Your task to perform on an android device: Open display settings Image 0: 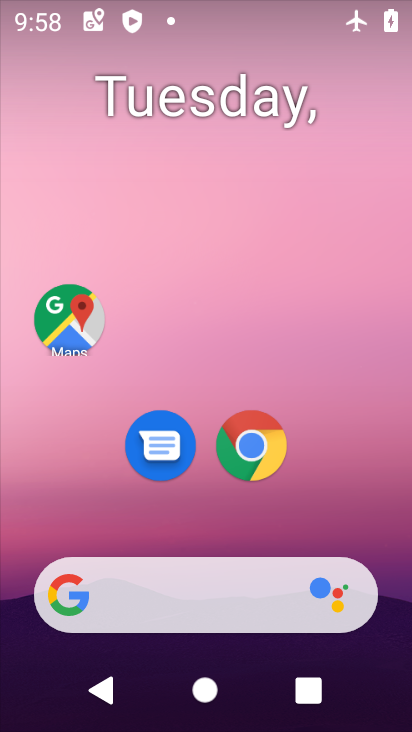
Step 0: drag from (401, 555) to (324, 46)
Your task to perform on an android device: Open display settings Image 1: 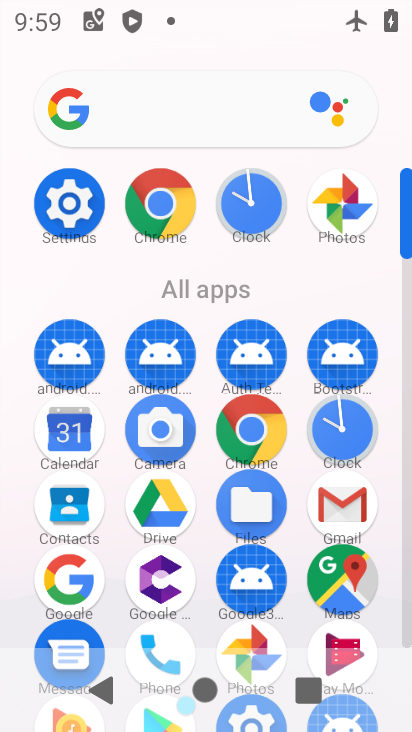
Step 1: click (84, 209)
Your task to perform on an android device: Open display settings Image 2: 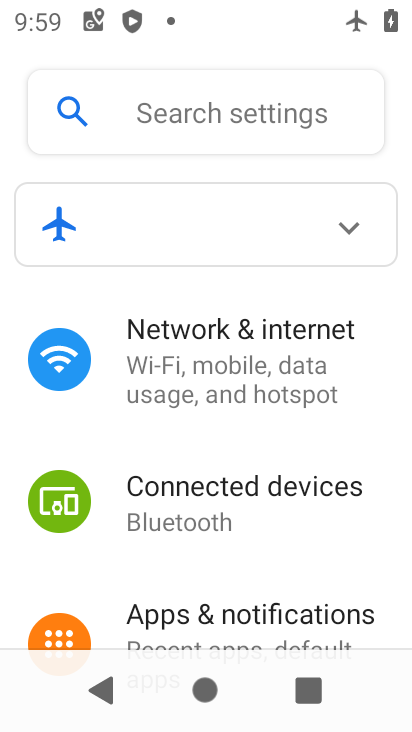
Step 2: drag from (339, 552) to (290, 172)
Your task to perform on an android device: Open display settings Image 3: 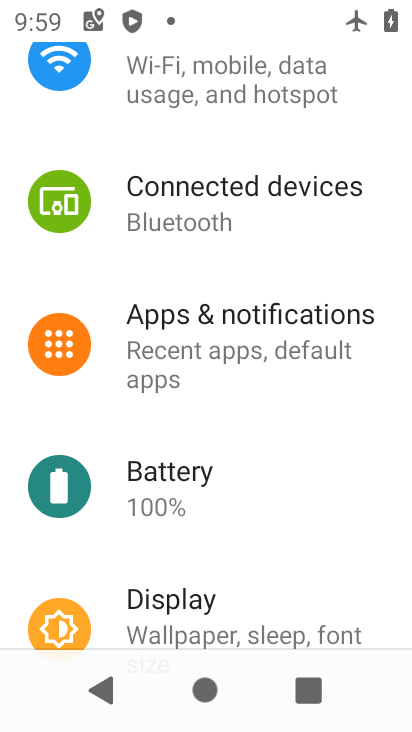
Step 3: click (294, 605)
Your task to perform on an android device: Open display settings Image 4: 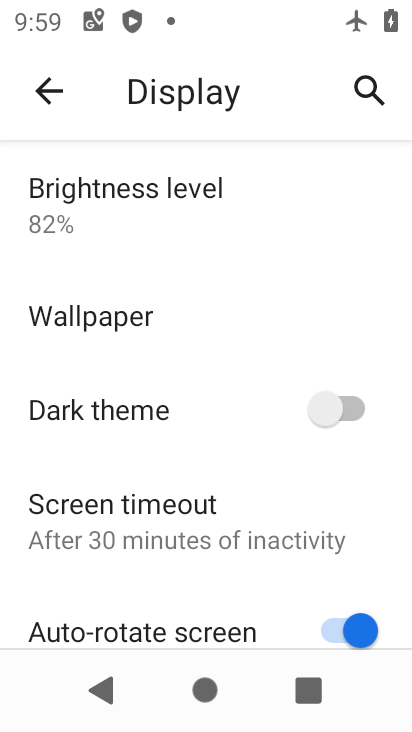
Step 4: task complete